Your task to perform on an android device: Open calendar and show me the third week of next month Image 0: 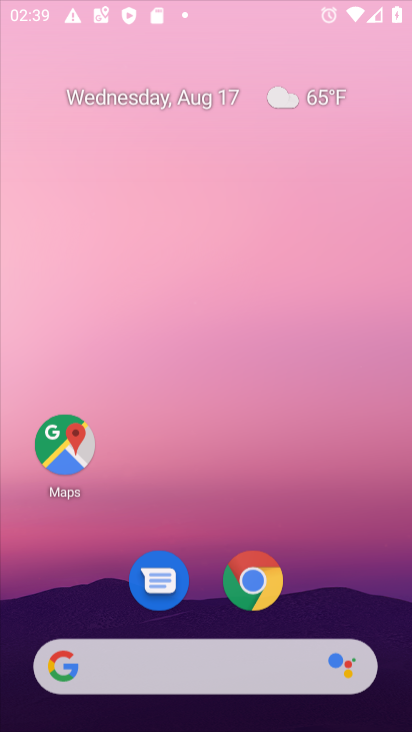
Step 0: click (334, 2)
Your task to perform on an android device: Open calendar and show me the third week of next month Image 1: 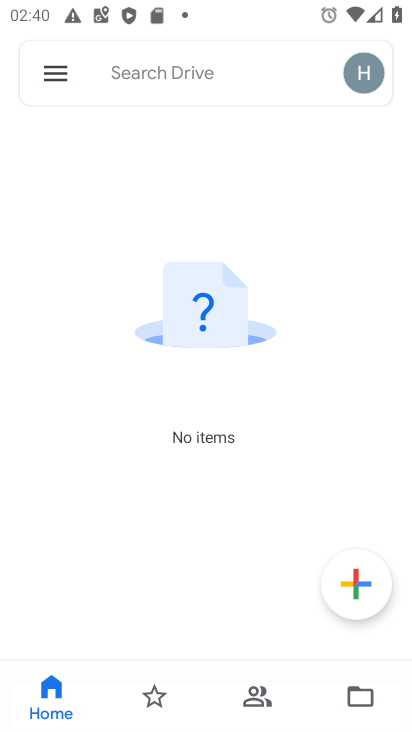
Step 1: press home button
Your task to perform on an android device: Open calendar and show me the third week of next month Image 2: 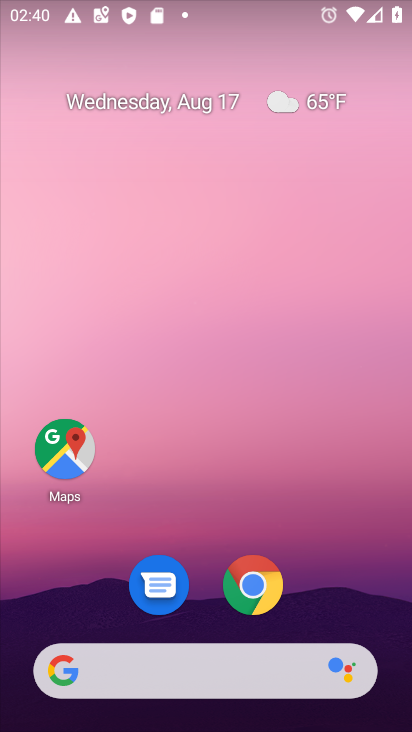
Step 2: drag from (317, 497) to (335, 35)
Your task to perform on an android device: Open calendar and show me the third week of next month Image 3: 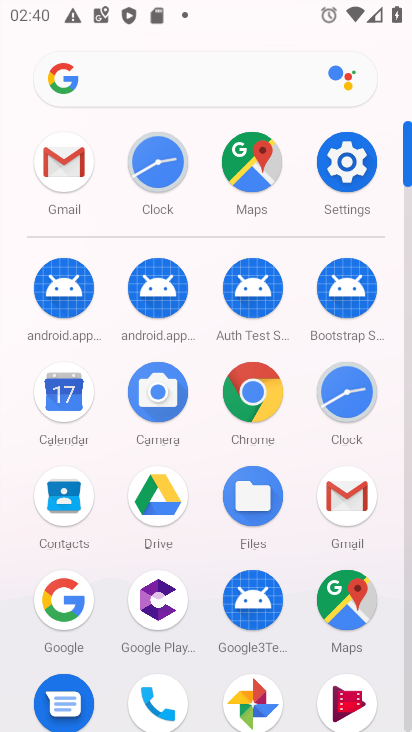
Step 3: click (69, 394)
Your task to perform on an android device: Open calendar and show me the third week of next month Image 4: 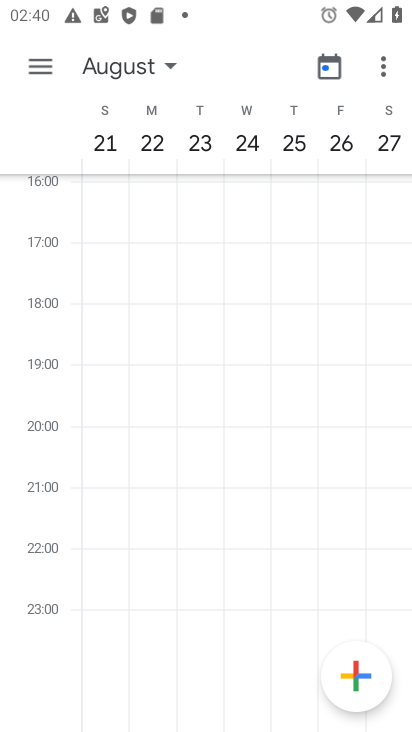
Step 4: click (48, 63)
Your task to perform on an android device: Open calendar and show me the third week of next month Image 5: 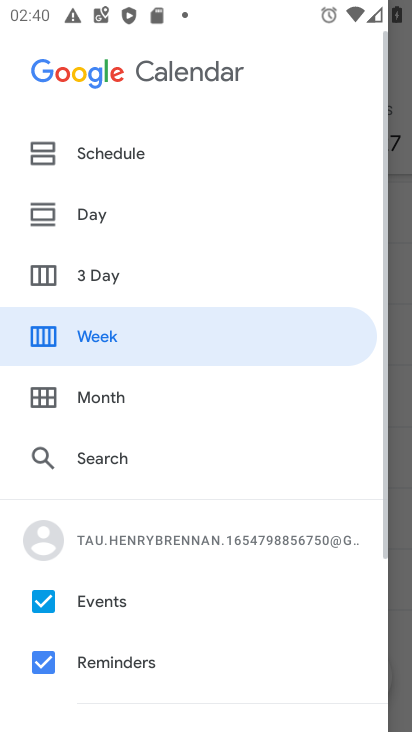
Step 5: click (44, 399)
Your task to perform on an android device: Open calendar and show me the third week of next month Image 6: 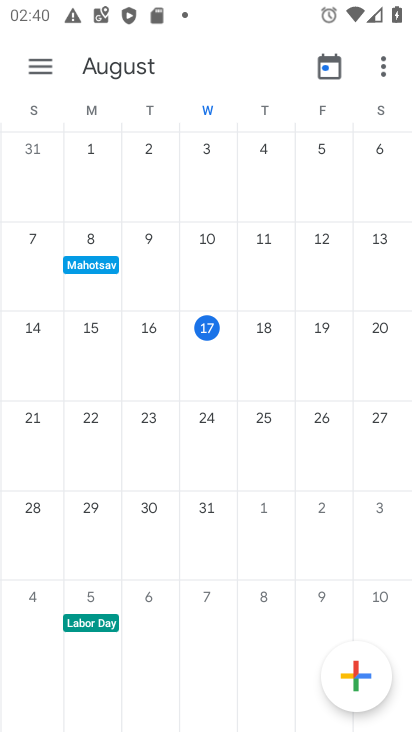
Step 6: drag from (323, 452) to (1, 401)
Your task to perform on an android device: Open calendar and show me the third week of next month Image 7: 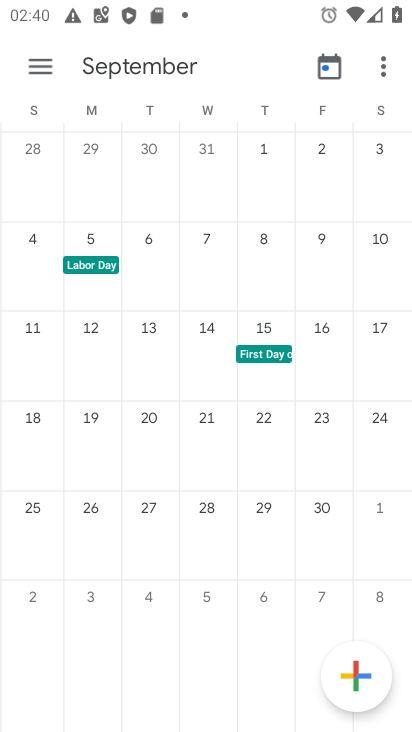
Step 7: click (36, 420)
Your task to perform on an android device: Open calendar and show me the third week of next month Image 8: 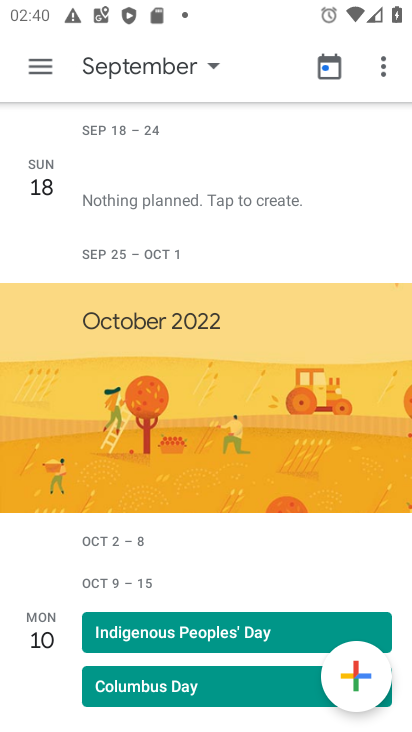
Step 8: click (40, 64)
Your task to perform on an android device: Open calendar and show me the third week of next month Image 9: 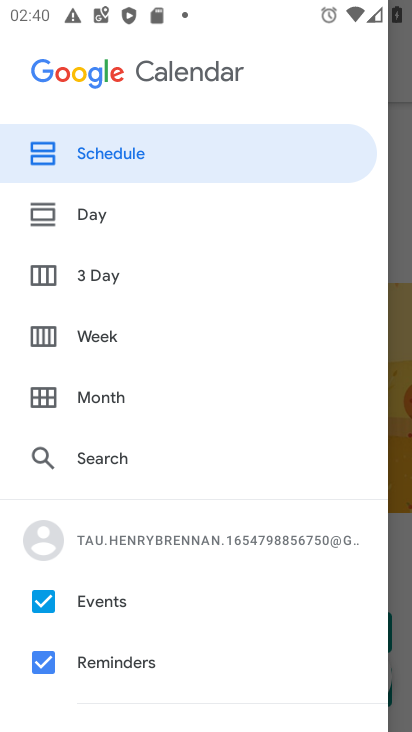
Step 9: click (48, 337)
Your task to perform on an android device: Open calendar and show me the third week of next month Image 10: 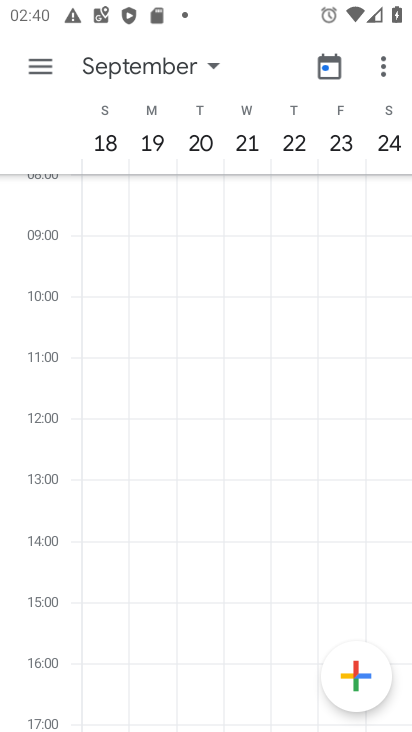
Step 10: task complete